Your task to perform on an android device: Clear the shopping cart on walmart.com. Search for usb-a on walmart.com, select the first entry, and add it to the cart. Image 0: 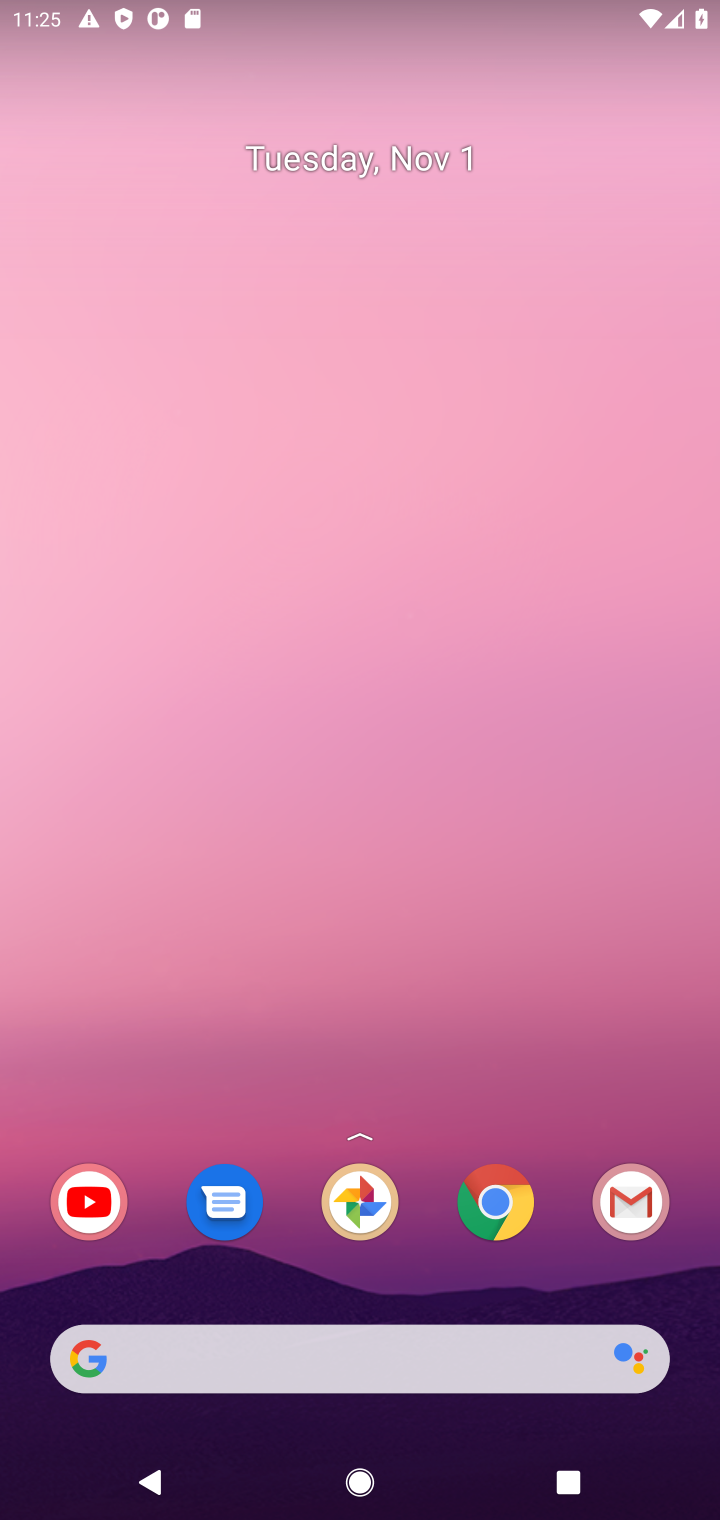
Step 0: click (522, 1213)
Your task to perform on an android device: Clear the shopping cart on walmart.com. Search for usb-a on walmart.com, select the first entry, and add it to the cart. Image 1: 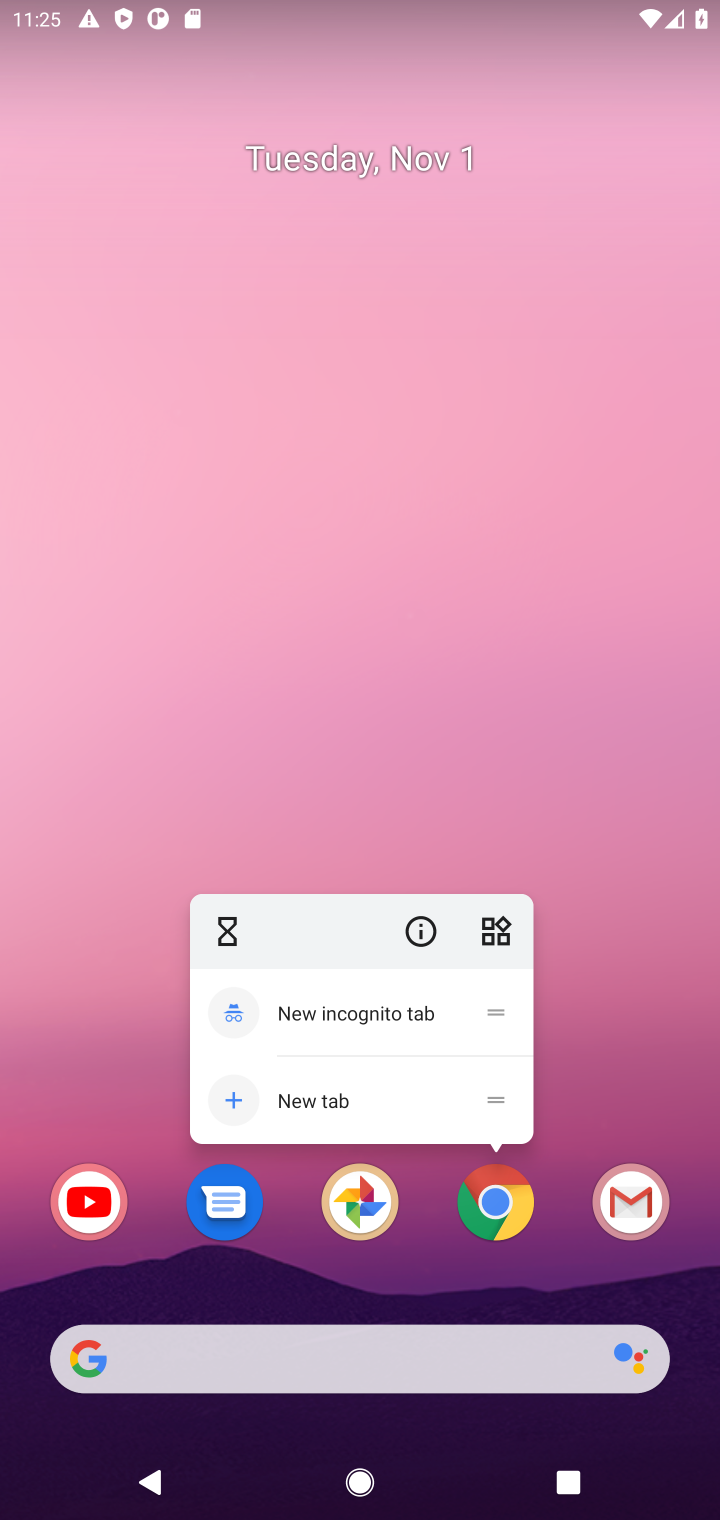
Step 1: click (238, 1342)
Your task to perform on an android device: Clear the shopping cart on walmart.com. Search for usb-a on walmart.com, select the first entry, and add it to the cart. Image 2: 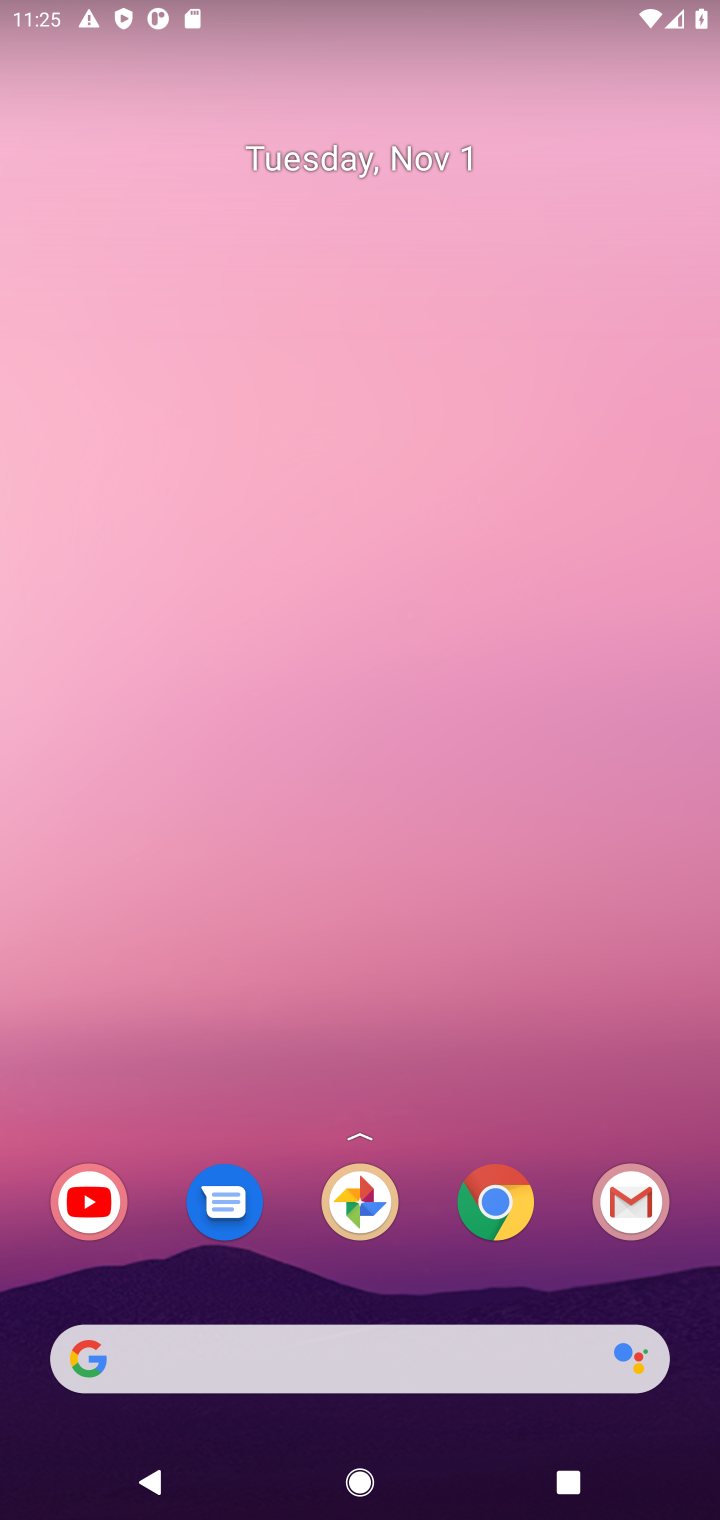
Step 2: click (497, 1219)
Your task to perform on an android device: Clear the shopping cart on walmart.com. Search for usb-a on walmart.com, select the first entry, and add it to the cart. Image 3: 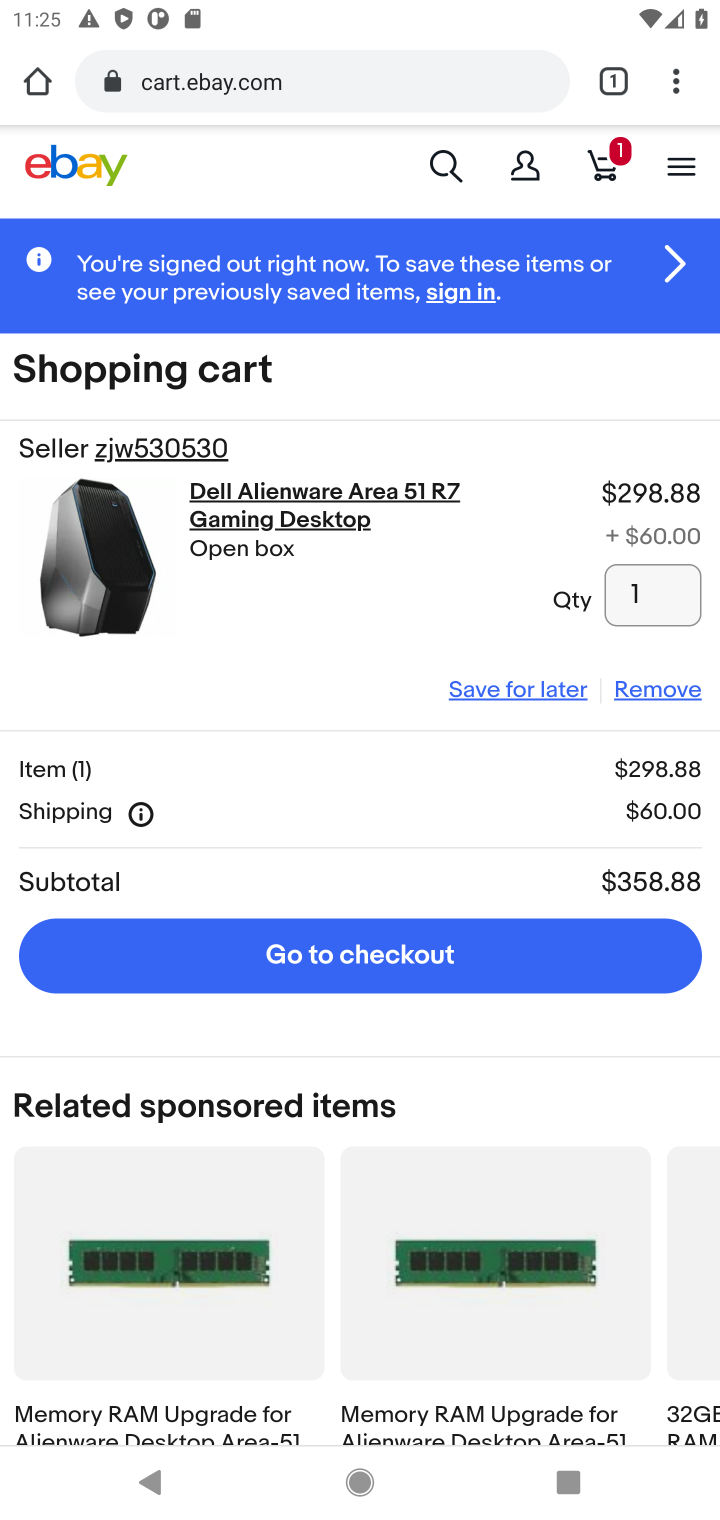
Step 3: click (323, 91)
Your task to perform on an android device: Clear the shopping cart on walmart.com. Search for usb-a on walmart.com, select the first entry, and add it to the cart. Image 4: 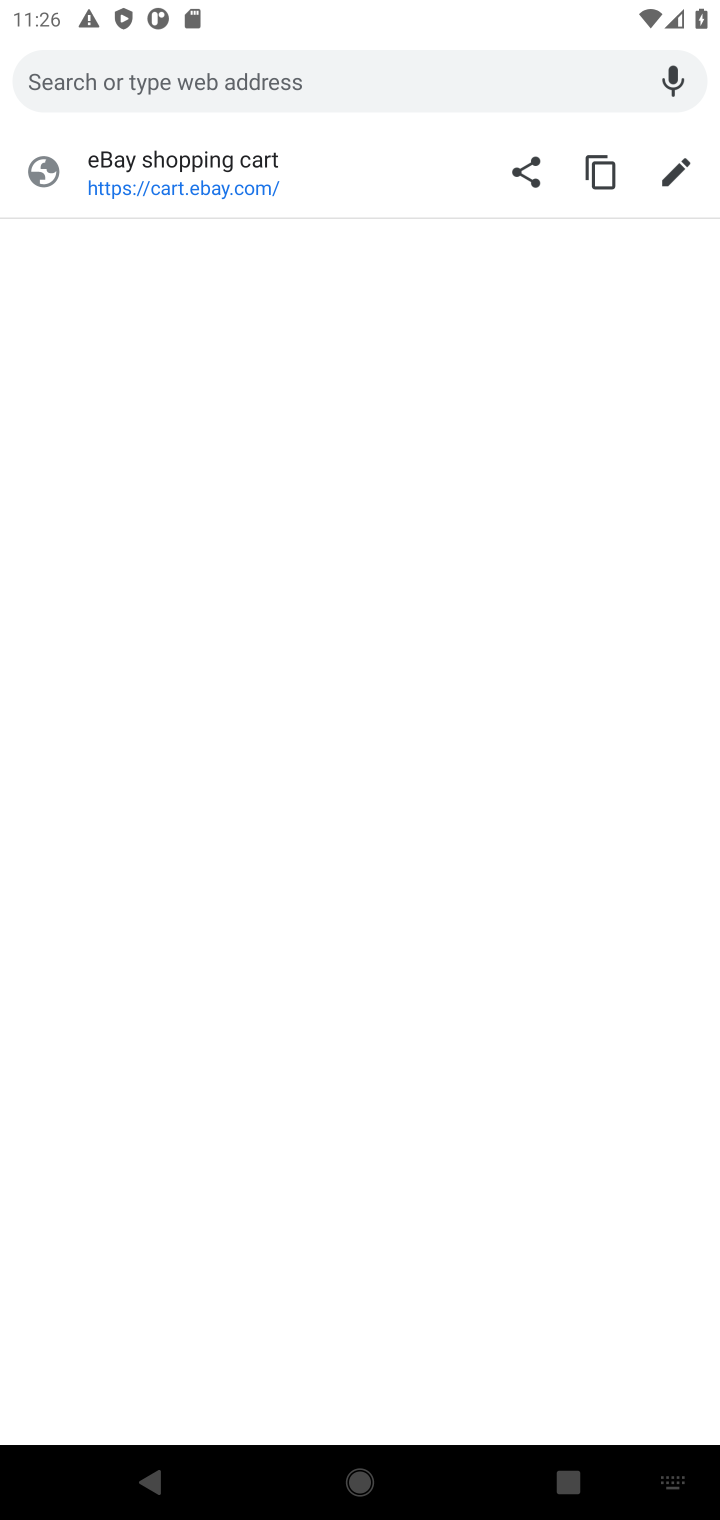
Step 4: type "walmart.com"
Your task to perform on an android device: Clear the shopping cart on walmart.com. Search for usb-a on walmart.com, select the first entry, and add it to the cart. Image 5: 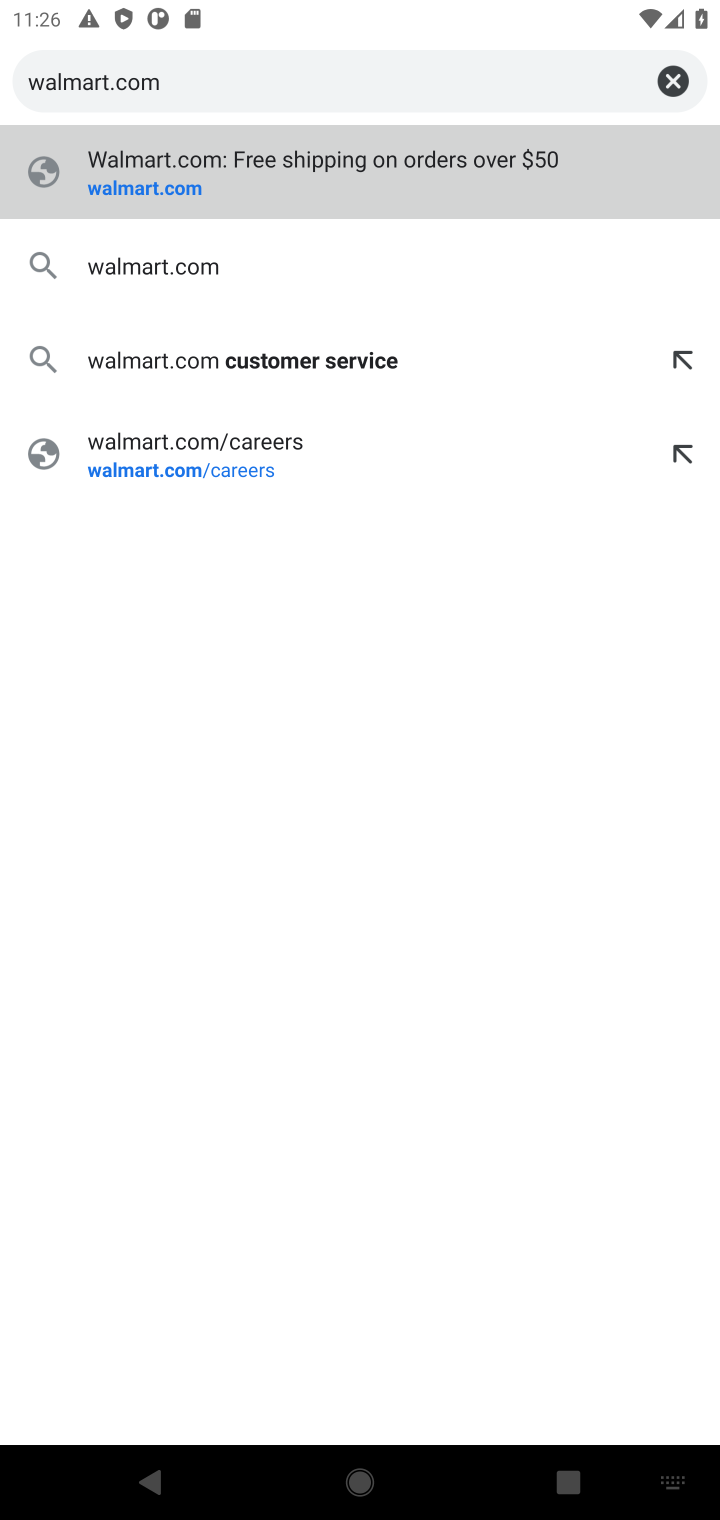
Step 5: type ""
Your task to perform on an android device: Clear the shopping cart on walmart.com. Search for usb-a on walmart.com, select the first entry, and add it to the cart. Image 6: 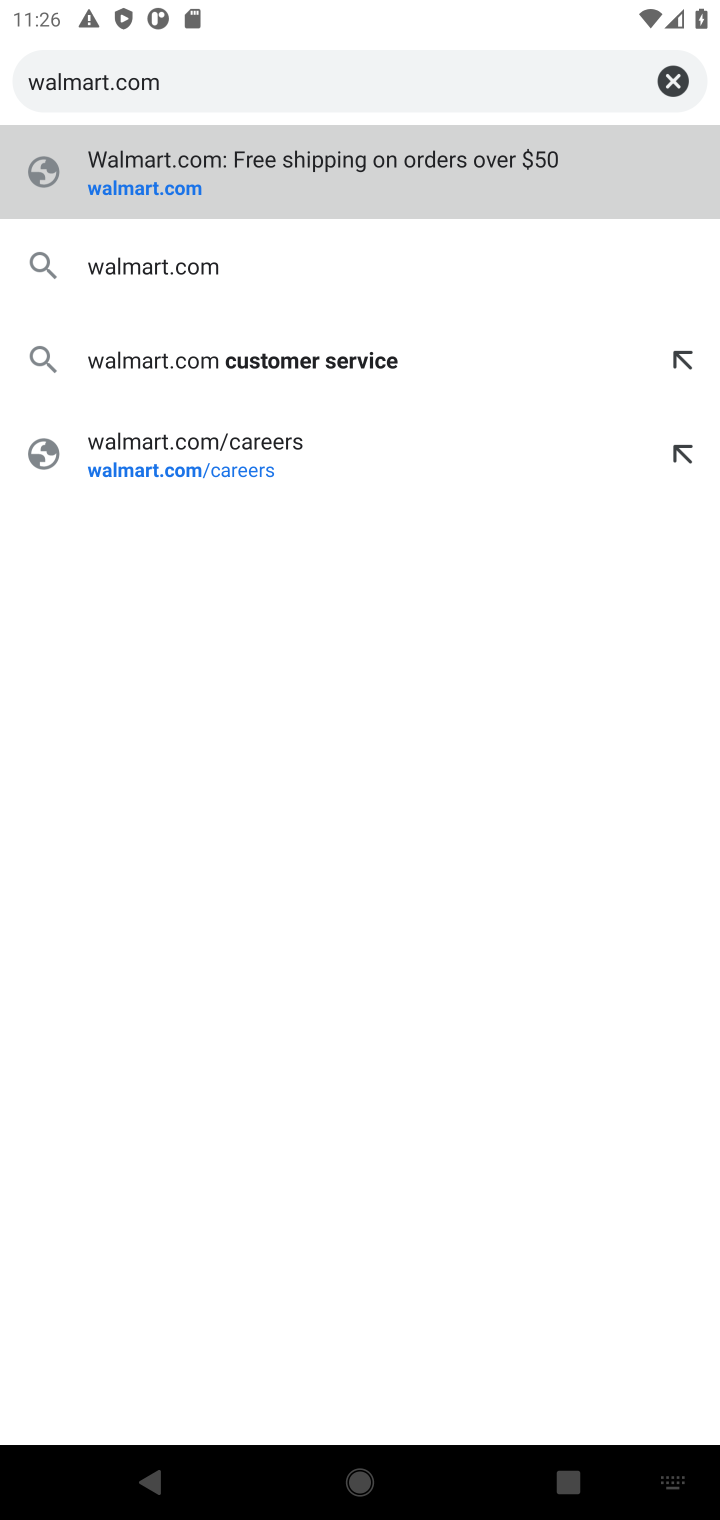
Step 6: press enter
Your task to perform on an android device: Clear the shopping cart on walmart.com. Search for usb-a on walmart.com, select the first entry, and add it to the cart. Image 7: 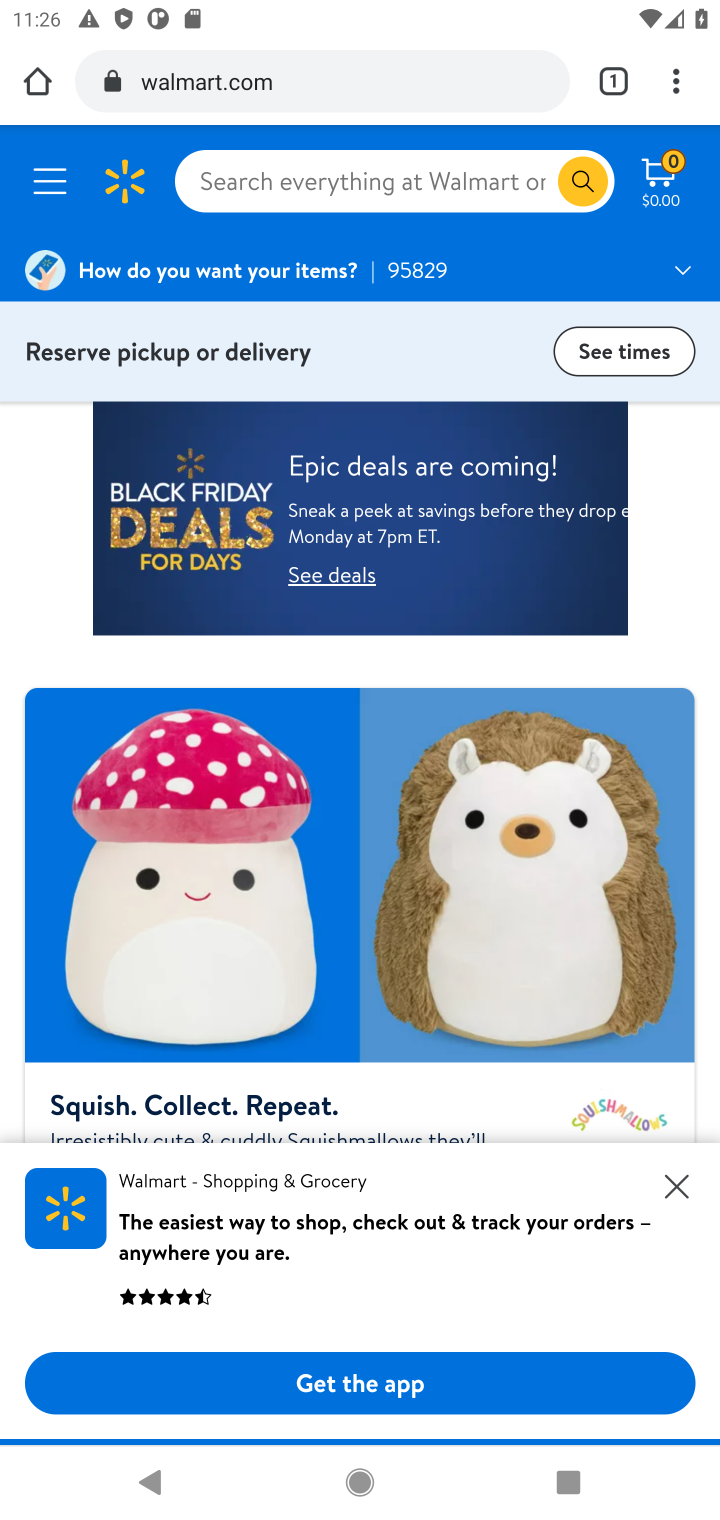
Step 7: click (342, 182)
Your task to perform on an android device: Clear the shopping cart on walmart.com. Search for usb-a on walmart.com, select the first entry, and add it to the cart. Image 8: 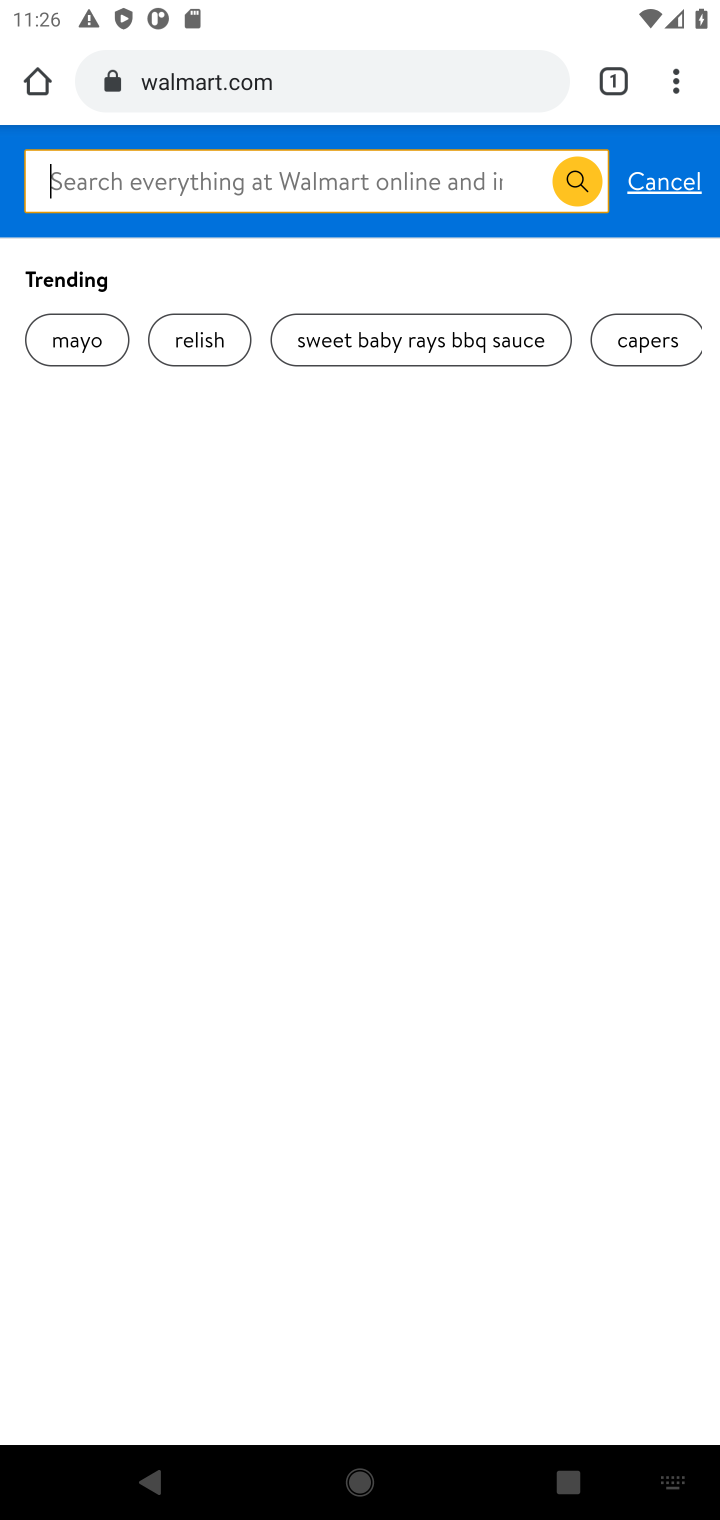
Step 8: type "usb-a"
Your task to perform on an android device: Clear the shopping cart on walmart.com. Search for usb-a on walmart.com, select the first entry, and add it to the cart. Image 9: 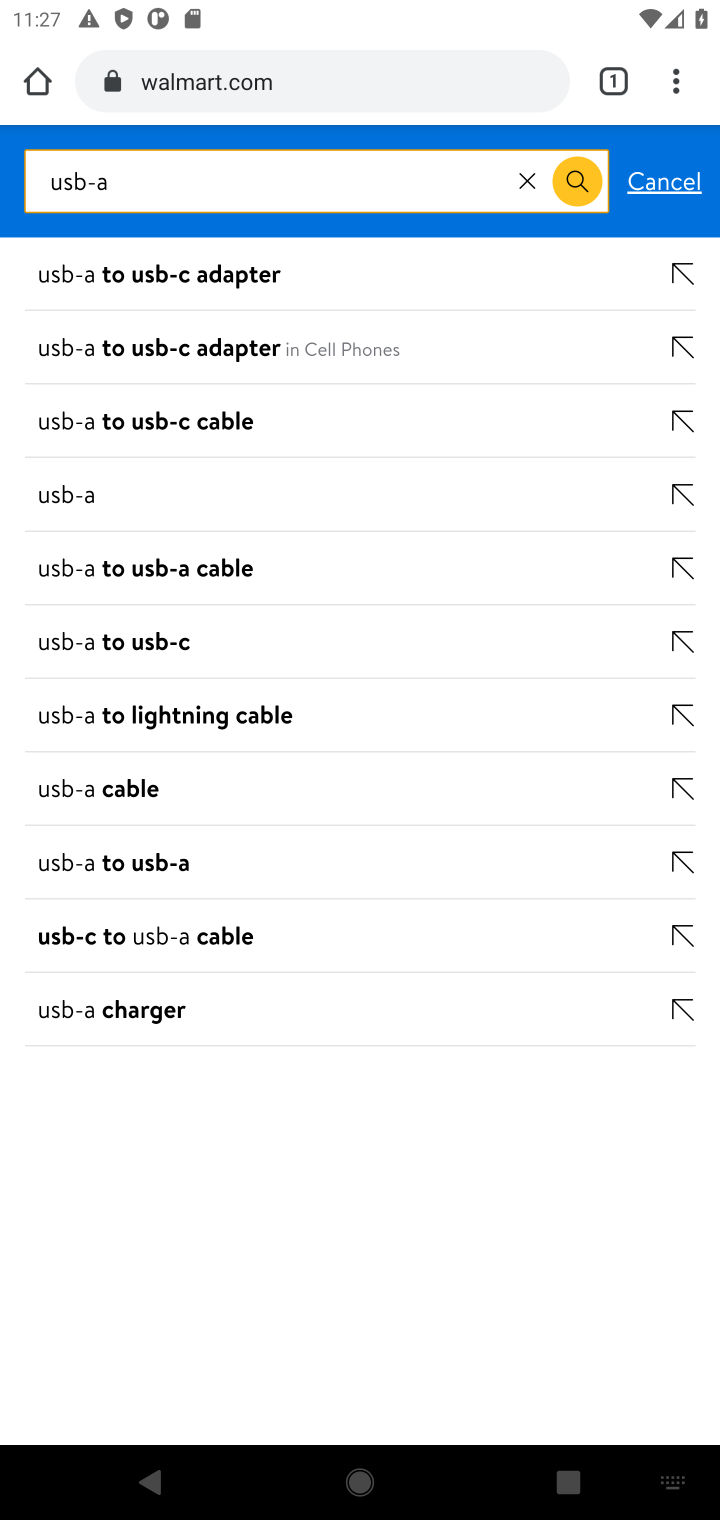
Step 9: press enter
Your task to perform on an android device: Clear the shopping cart on walmart.com. Search for usb-a on walmart.com, select the first entry, and add it to the cart. Image 10: 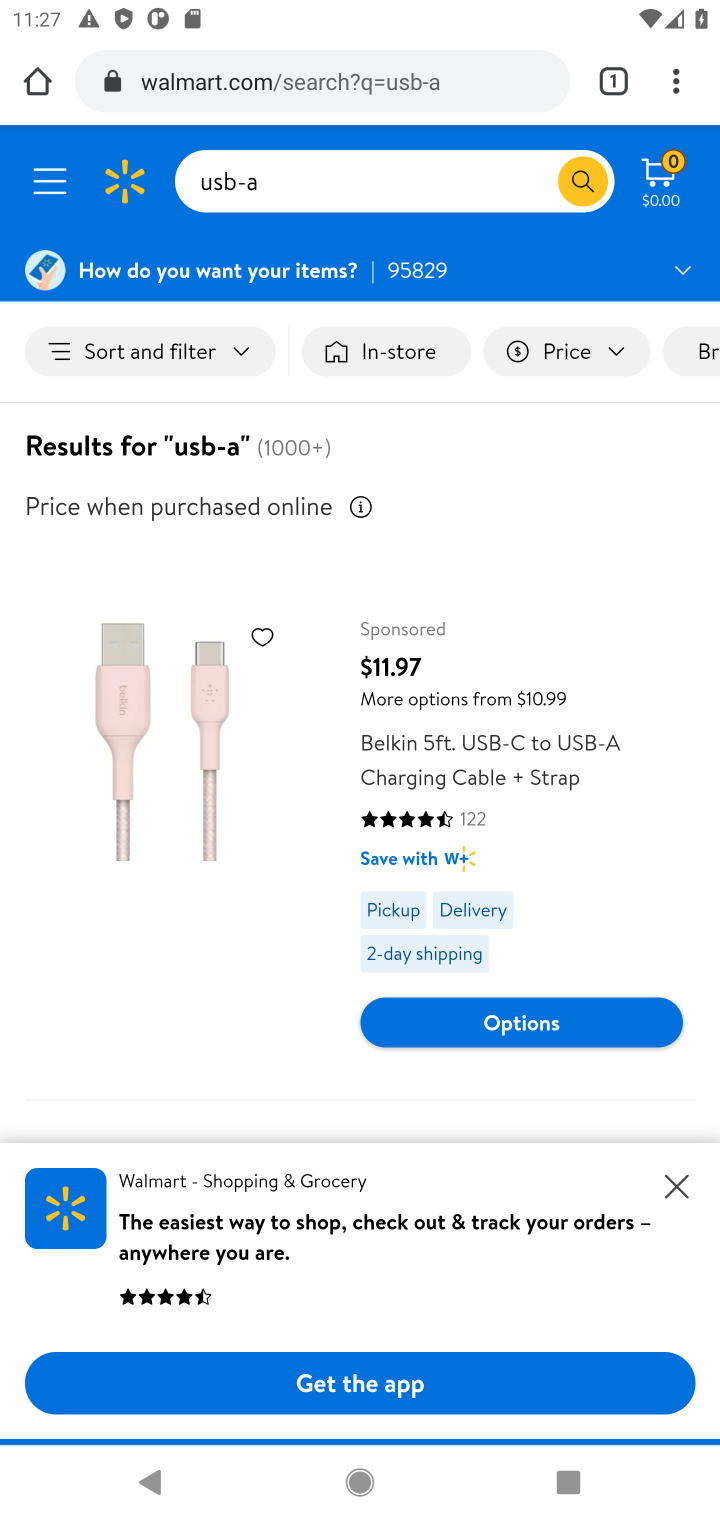
Step 10: click (687, 1191)
Your task to perform on an android device: Clear the shopping cart on walmart.com. Search for usb-a on walmart.com, select the first entry, and add it to the cart. Image 11: 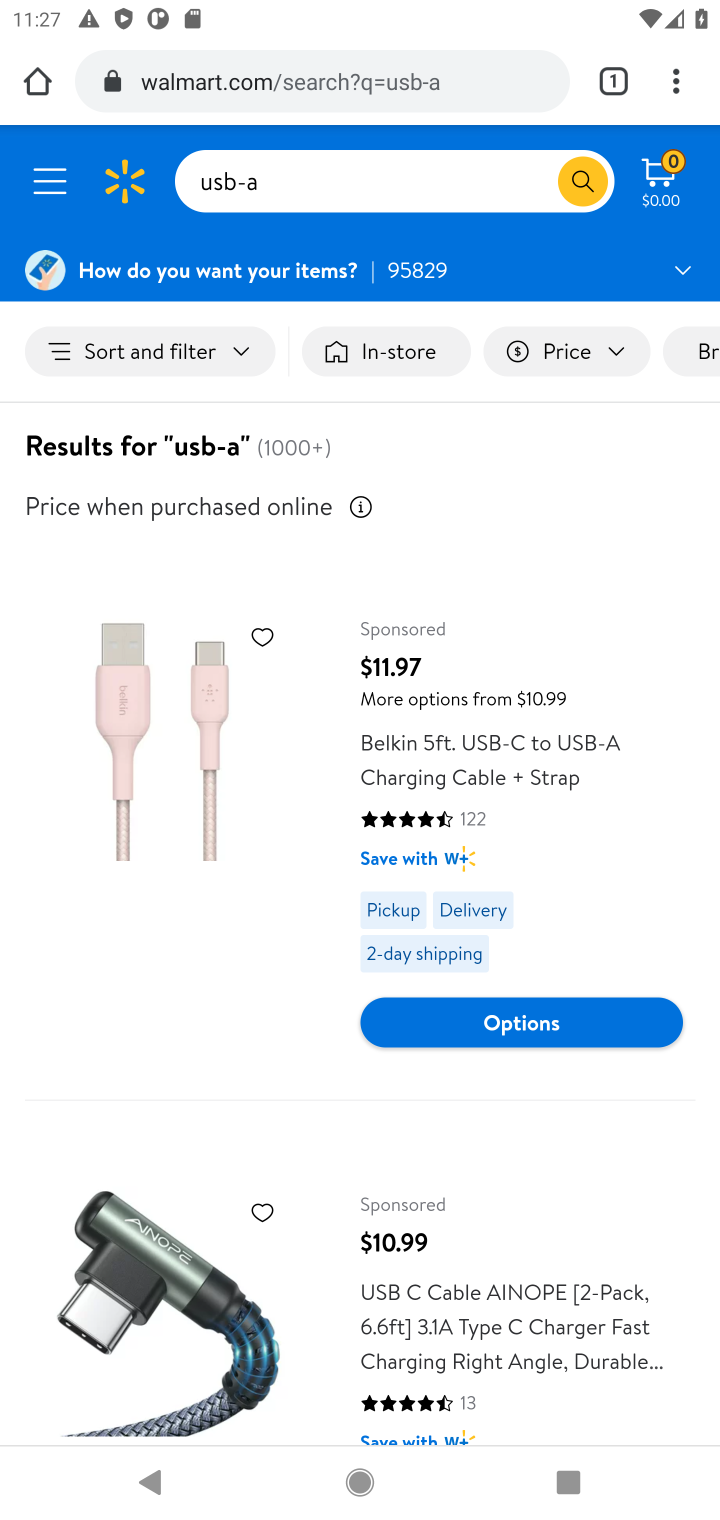
Step 11: click (461, 763)
Your task to perform on an android device: Clear the shopping cart on walmart.com. Search for usb-a on walmart.com, select the first entry, and add it to the cart. Image 12: 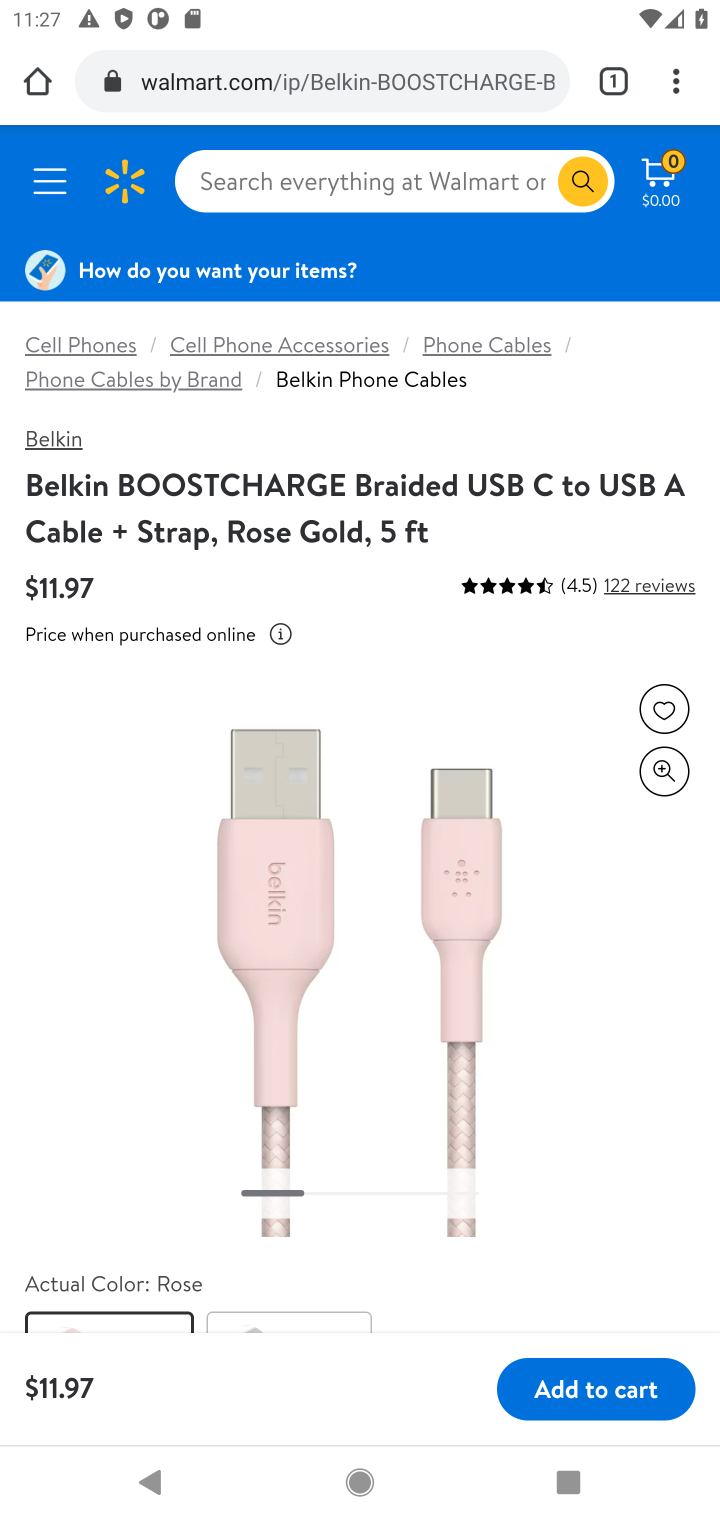
Step 12: click (622, 1393)
Your task to perform on an android device: Clear the shopping cart on walmart.com. Search for usb-a on walmart.com, select the first entry, and add it to the cart. Image 13: 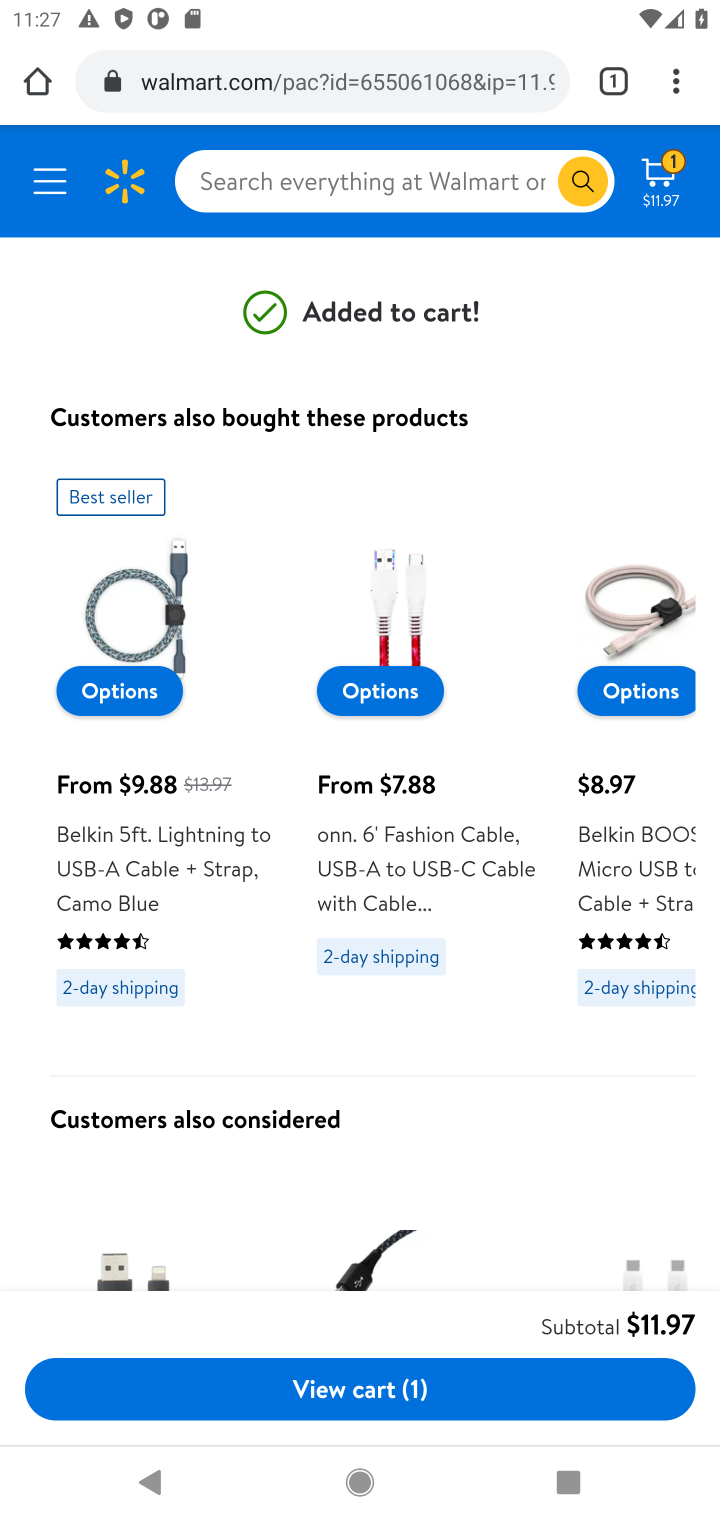
Step 13: click (664, 173)
Your task to perform on an android device: Clear the shopping cart on walmart.com. Search for usb-a on walmart.com, select the first entry, and add it to the cart. Image 14: 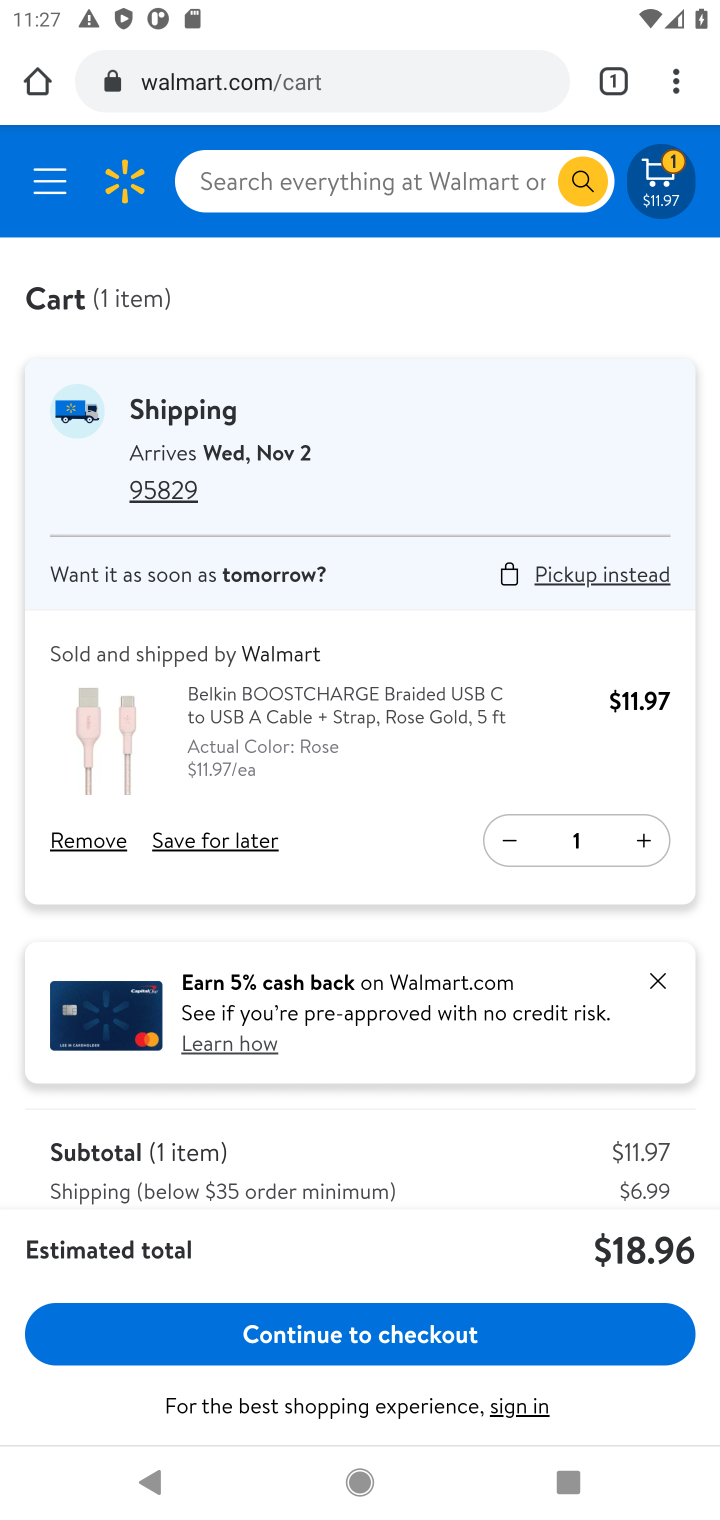
Step 14: click (391, 1334)
Your task to perform on an android device: Clear the shopping cart on walmart.com. Search for usb-a on walmart.com, select the first entry, and add it to the cart. Image 15: 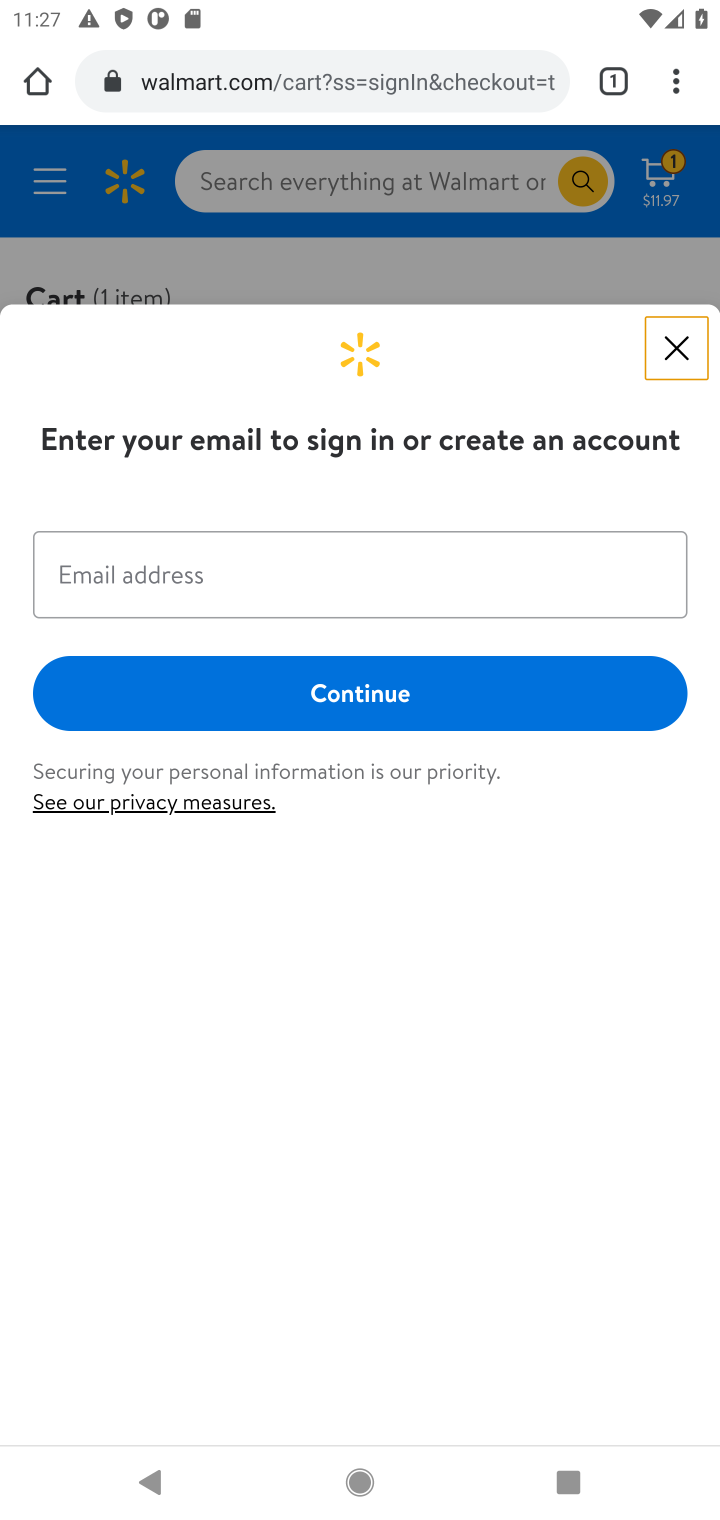
Step 15: click (658, 339)
Your task to perform on an android device: Clear the shopping cart on walmart.com. Search for usb-a on walmart.com, select the first entry, and add it to the cart. Image 16: 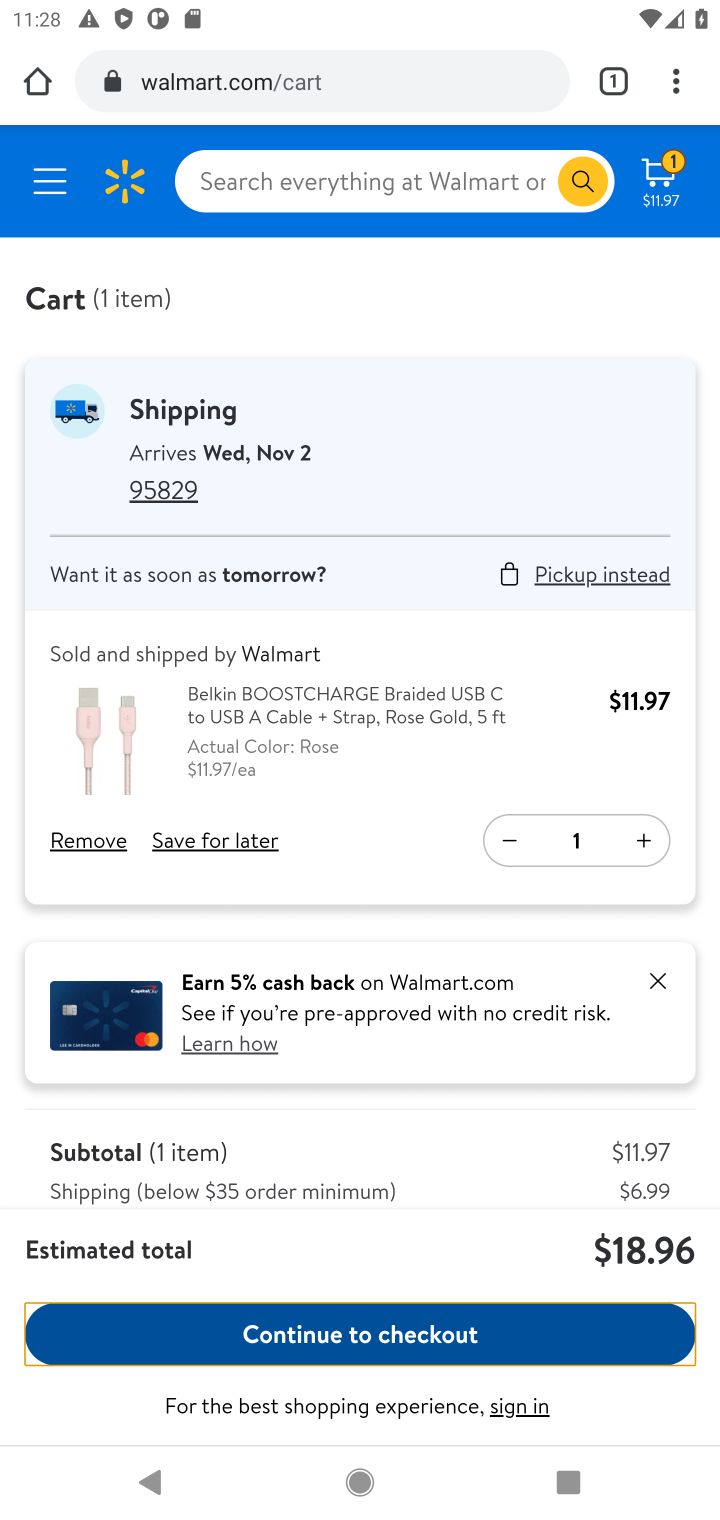
Step 16: click (483, 1346)
Your task to perform on an android device: Clear the shopping cart on walmart.com. Search for usb-a on walmart.com, select the first entry, and add it to the cart. Image 17: 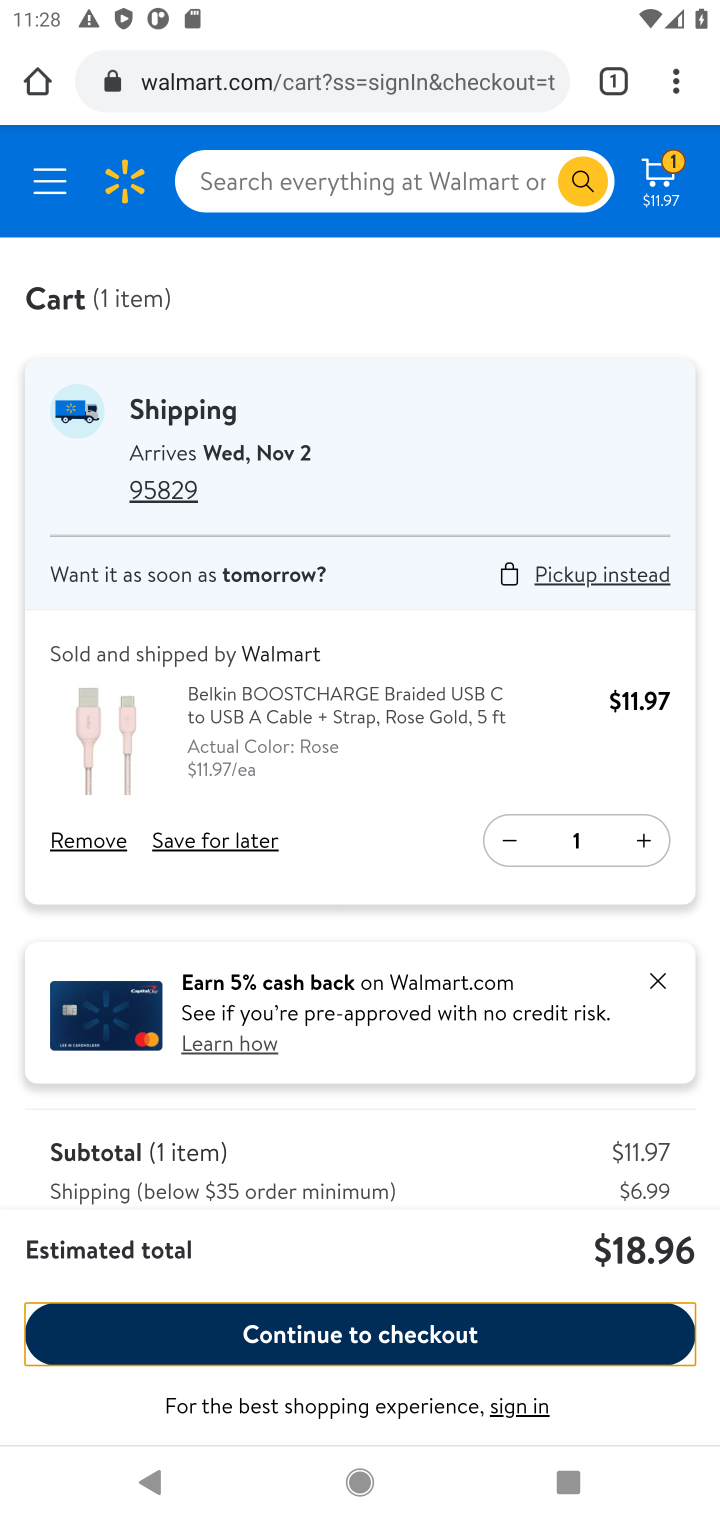
Step 17: task complete